Your task to perform on an android device: toggle airplane mode Image 0: 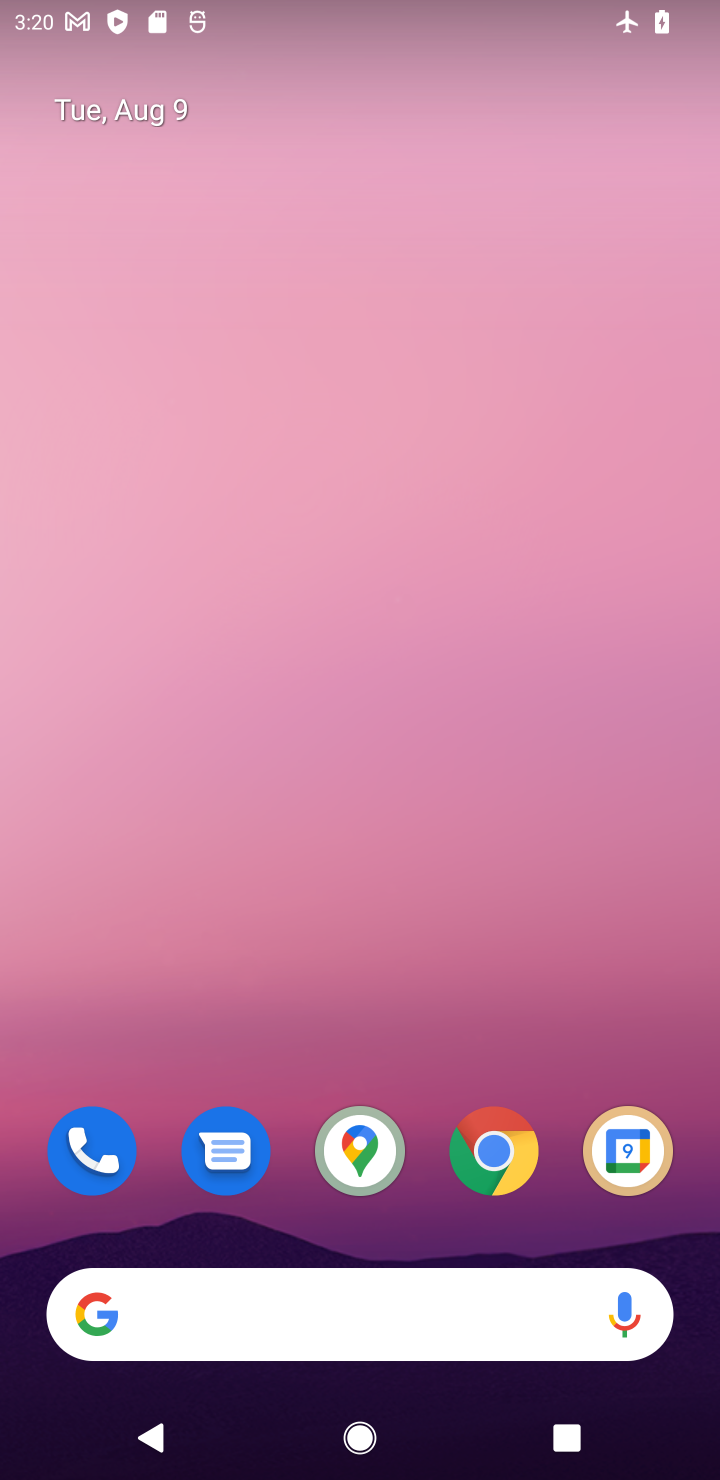
Step 0: drag from (302, 1367) to (293, 341)
Your task to perform on an android device: toggle airplane mode Image 1: 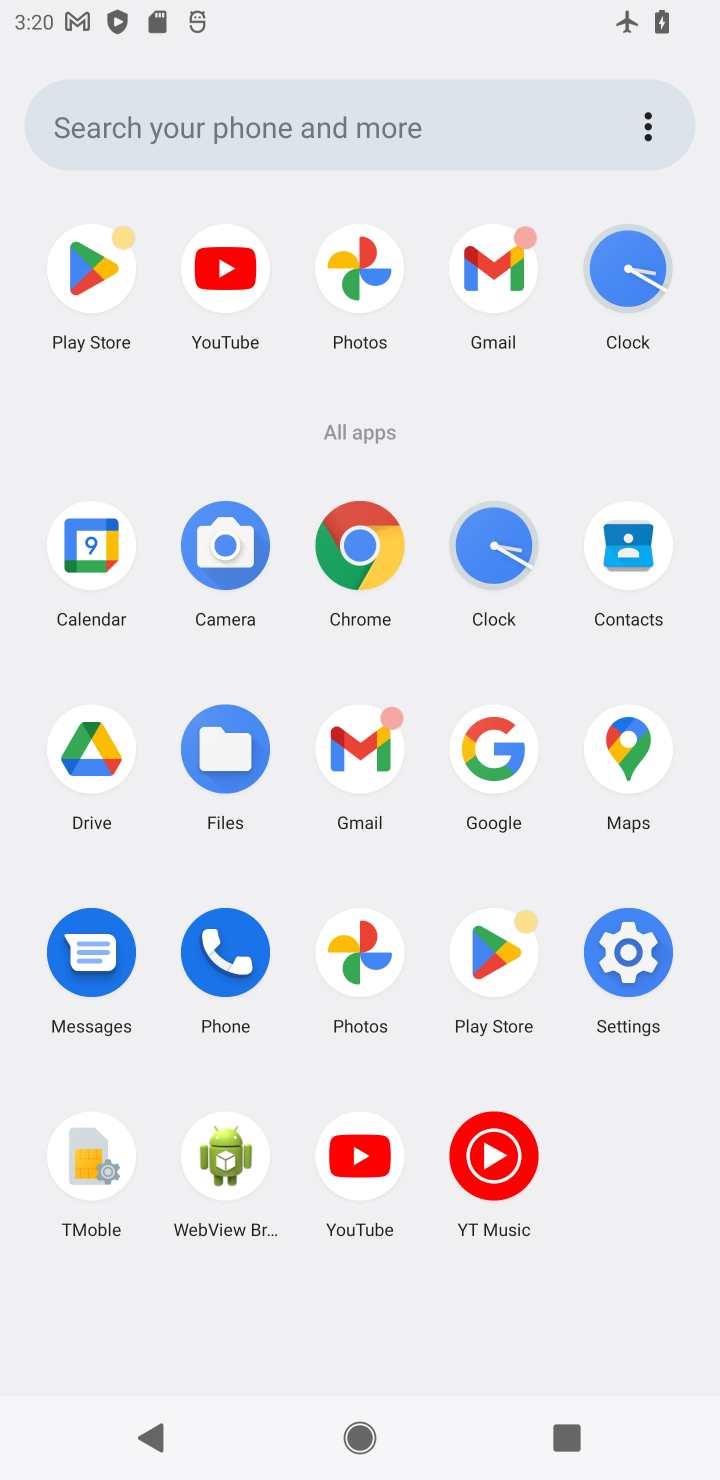
Step 1: click (620, 997)
Your task to perform on an android device: toggle airplane mode Image 2: 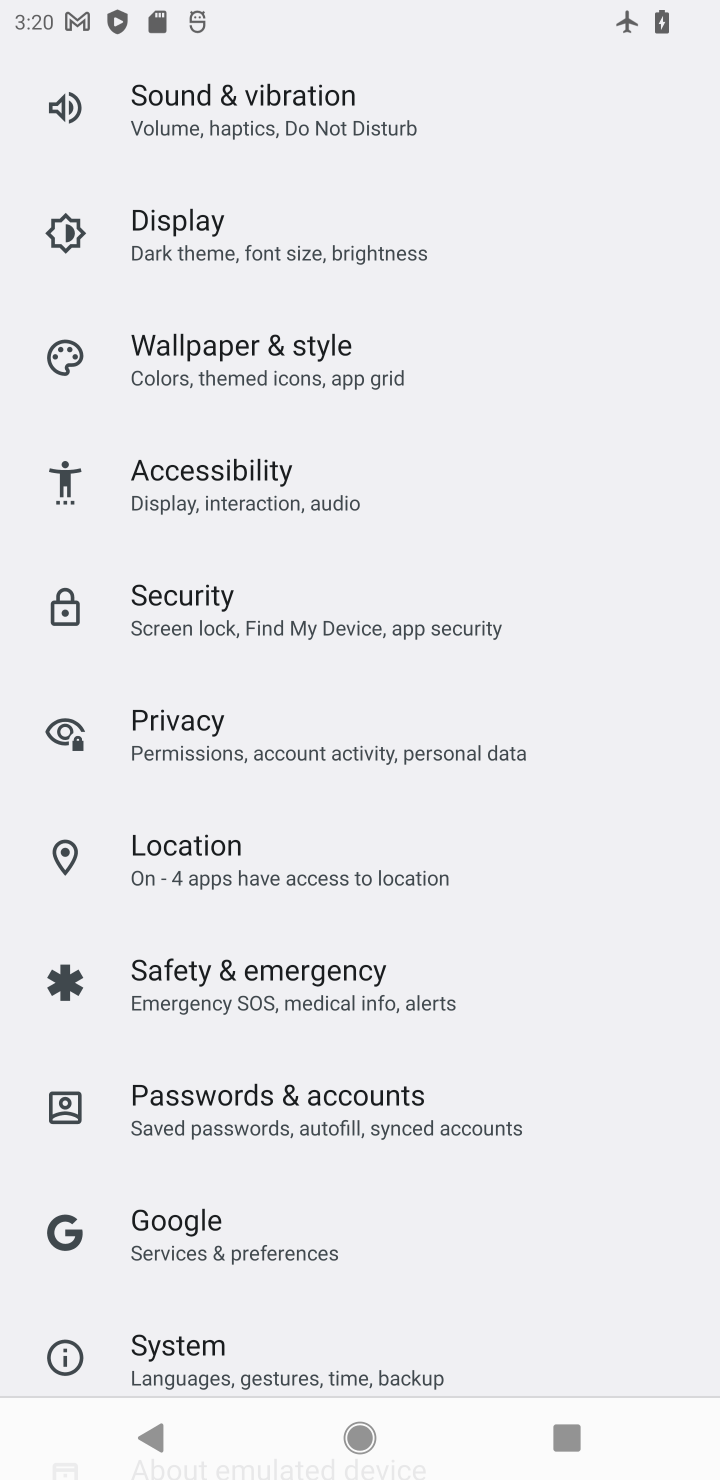
Step 2: drag from (485, 258) to (546, 1404)
Your task to perform on an android device: toggle airplane mode Image 3: 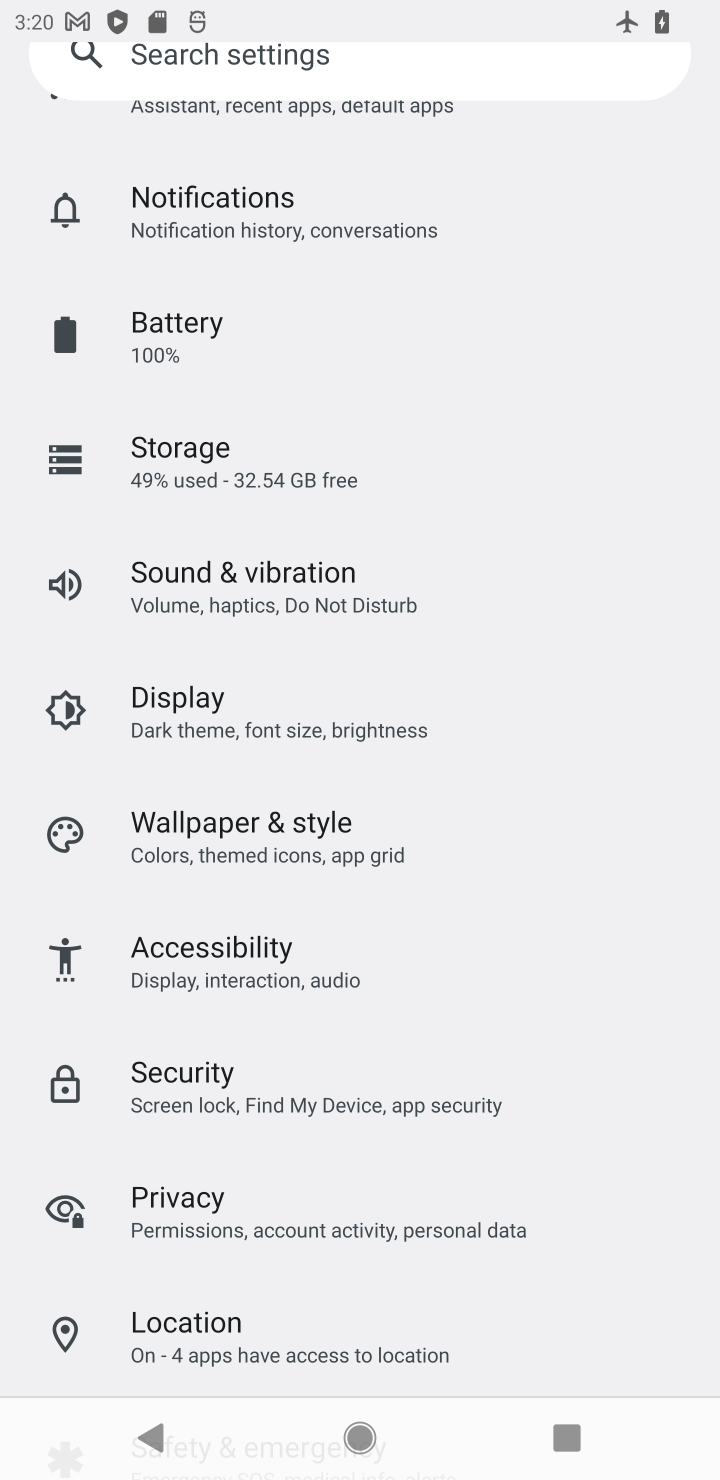
Step 3: drag from (568, 178) to (571, 1375)
Your task to perform on an android device: toggle airplane mode Image 4: 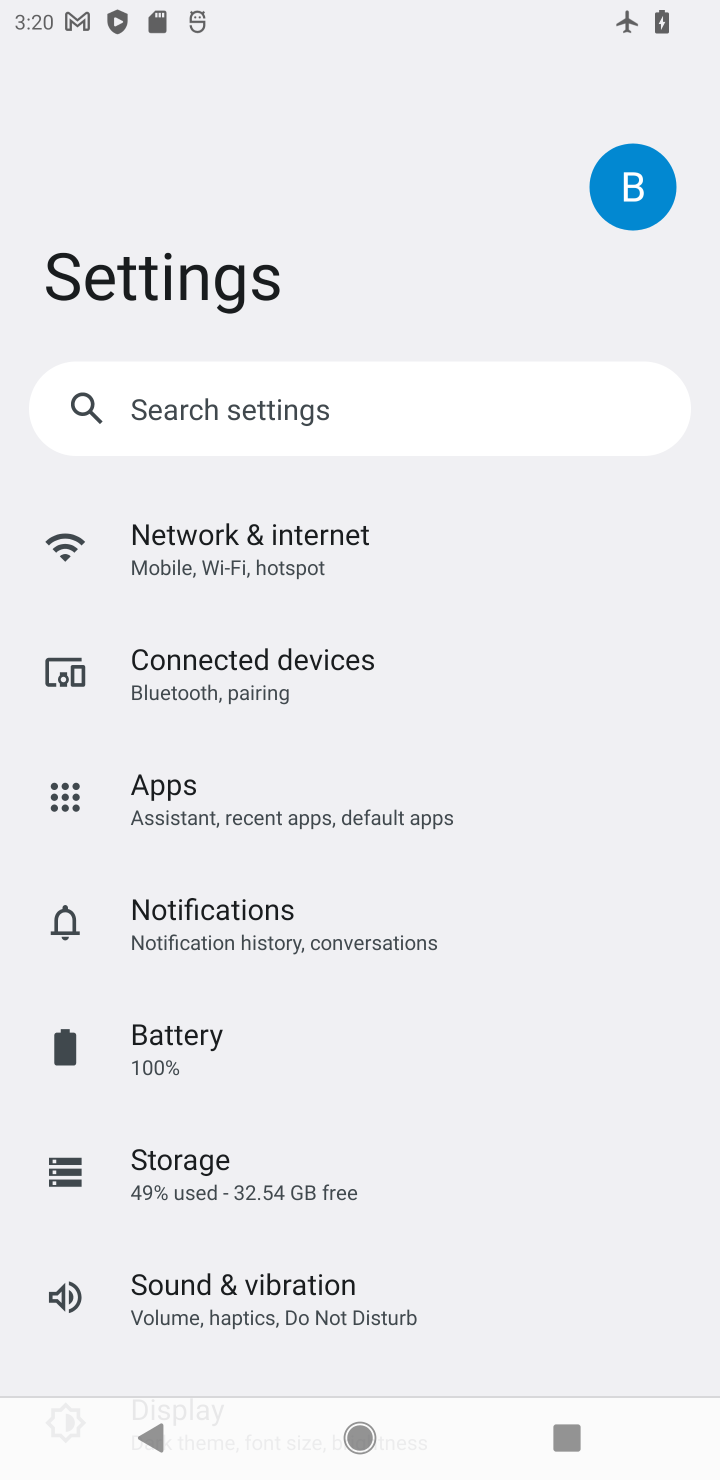
Step 4: click (449, 515)
Your task to perform on an android device: toggle airplane mode Image 5: 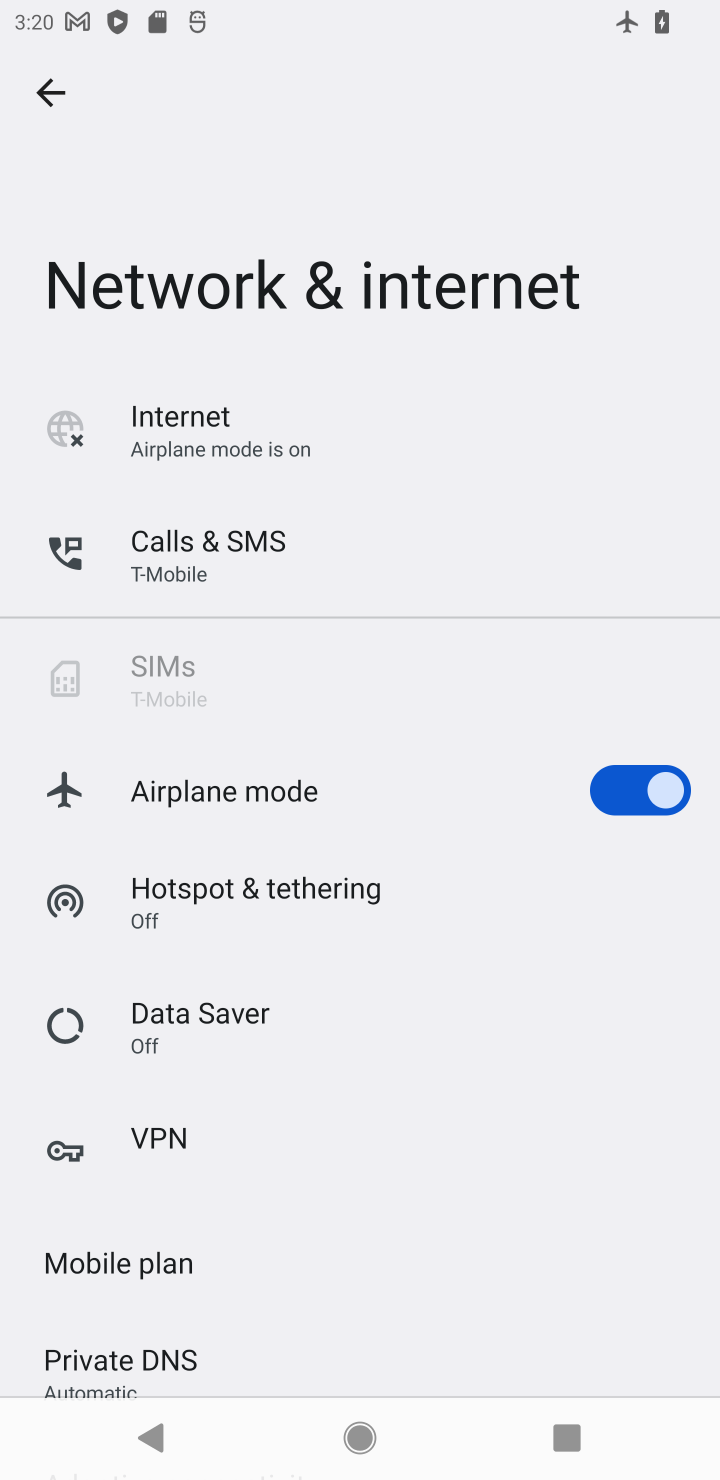
Step 5: click (650, 773)
Your task to perform on an android device: toggle airplane mode Image 6: 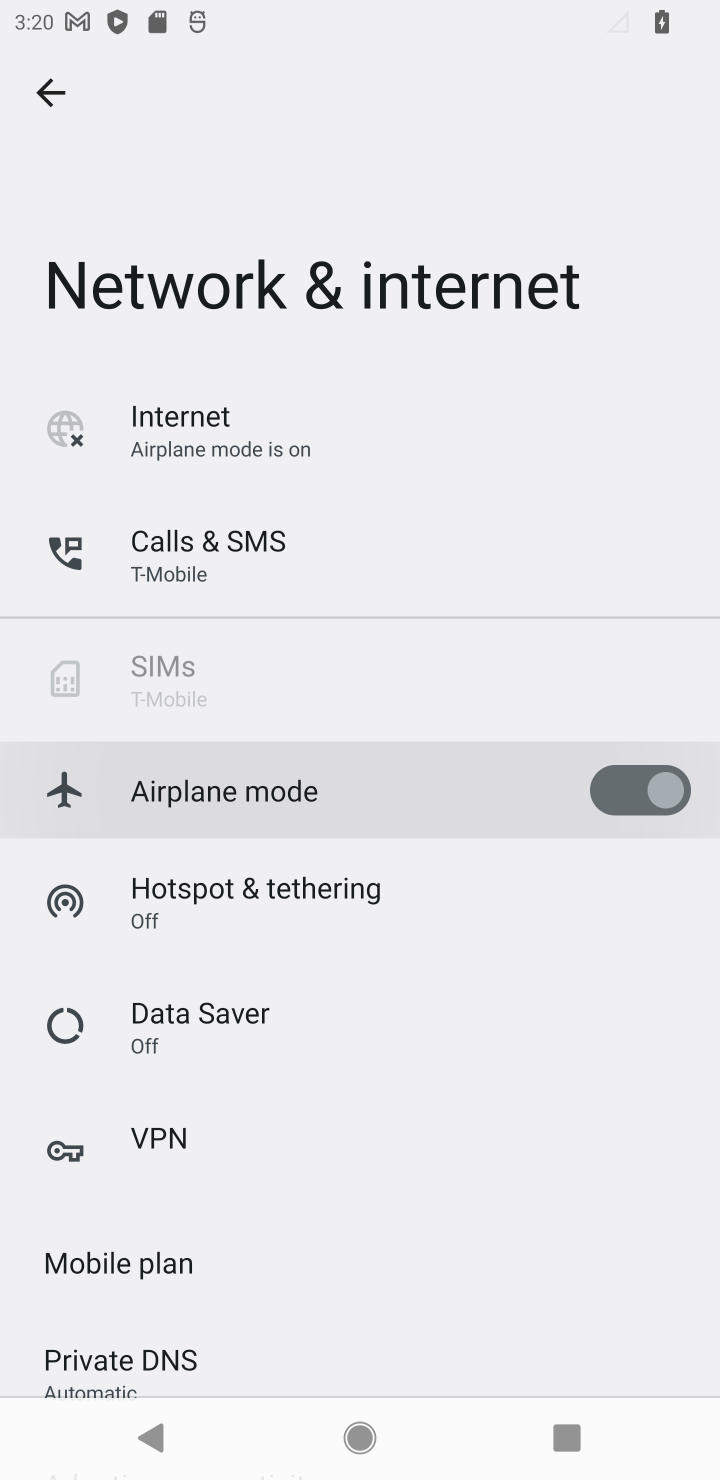
Step 6: task complete